Your task to perform on an android device: Open Google Chrome and click the shortcut for Amazon.com Image 0: 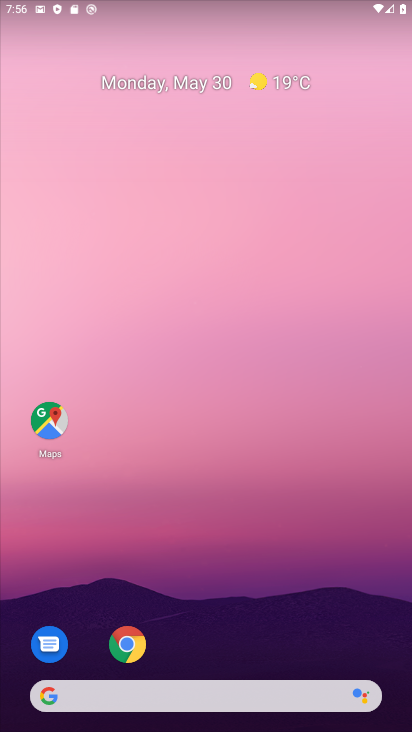
Step 0: drag from (177, 675) to (255, 216)
Your task to perform on an android device: Open Google Chrome and click the shortcut for Amazon.com Image 1: 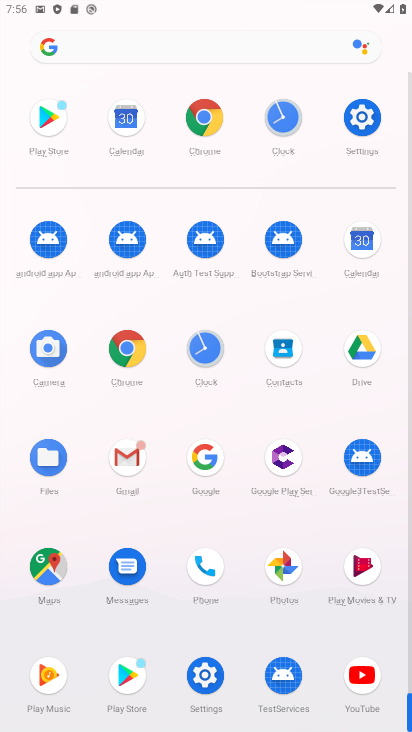
Step 1: click (127, 349)
Your task to perform on an android device: Open Google Chrome and click the shortcut for Amazon.com Image 2: 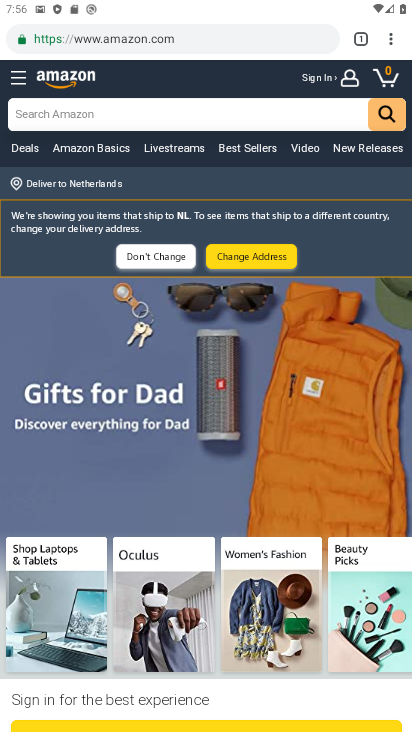
Step 2: click (368, 38)
Your task to perform on an android device: Open Google Chrome and click the shortcut for Amazon.com Image 3: 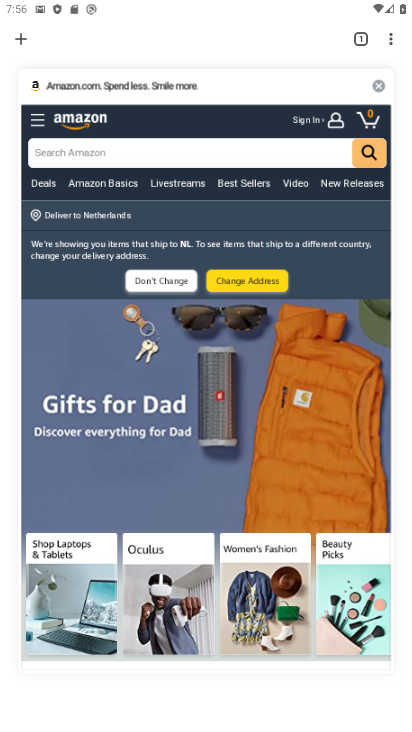
Step 3: click (31, 36)
Your task to perform on an android device: Open Google Chrome and click the shortcut for Amazon.com Image 4: 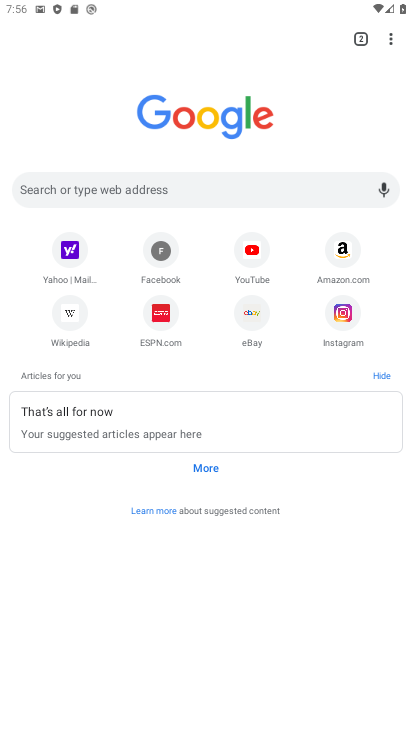
Step 4: click (344, 261)
Your task to perform on an android device: Open Google Chrome and click the shortcut for Amazon.com Image 5: 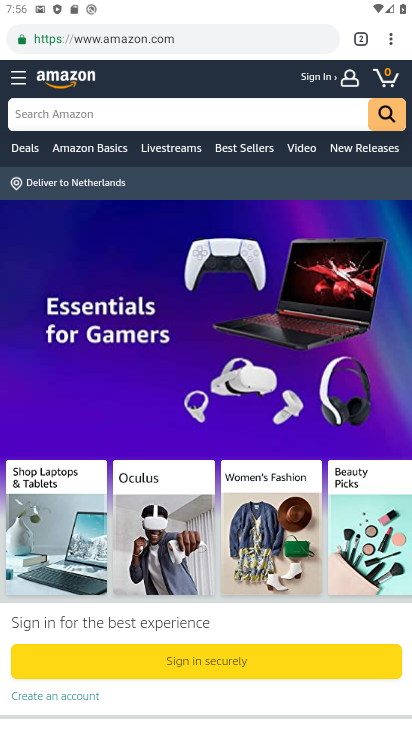
Step 5: task complete